Your task to perform on an android device: What's on my calendar today? Image 0: 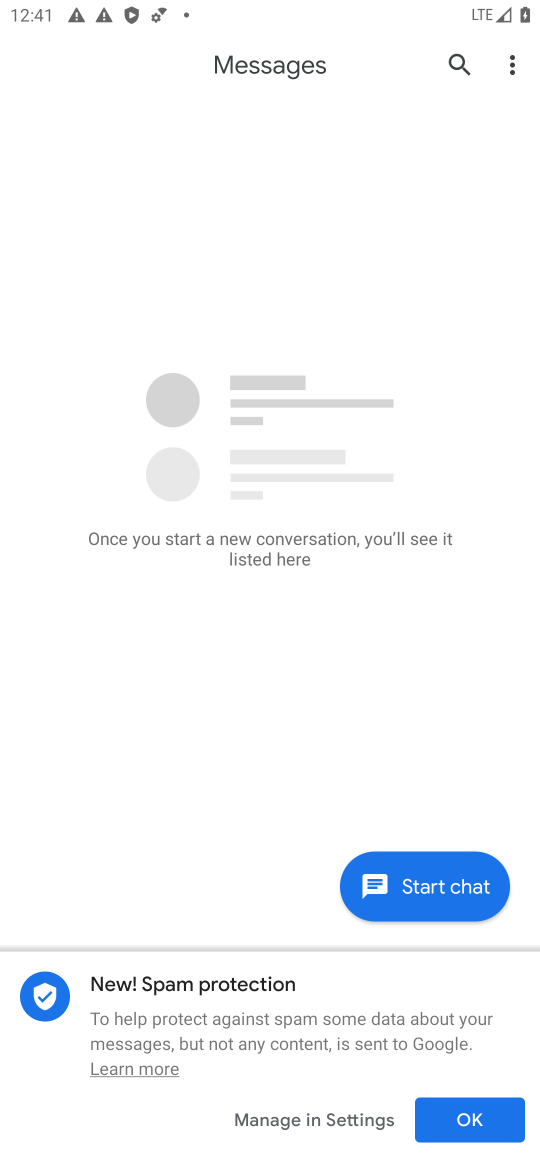
Step 0: press home button
Your task to perform on an android device: What's on my calendar today? Image 1: 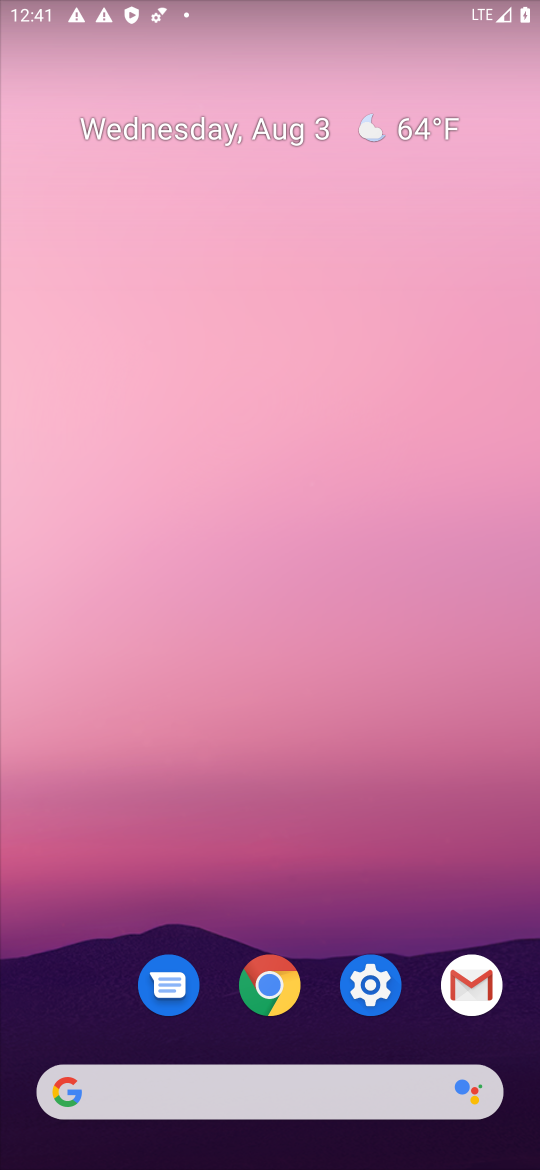
Step 1: drag from (331, 1134) to (339, 161)
Your task to perform on an android device: What's on my calendar today? Image 2: 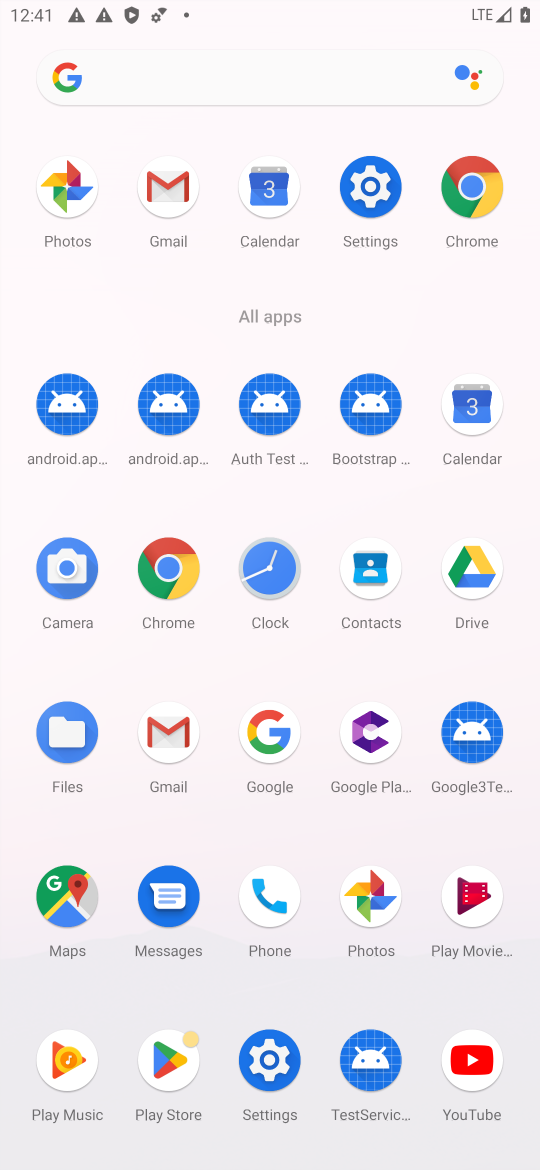
Step 2: click (482, 408)
Your task to perform on an android device: What's on my calendar today? Image 3: 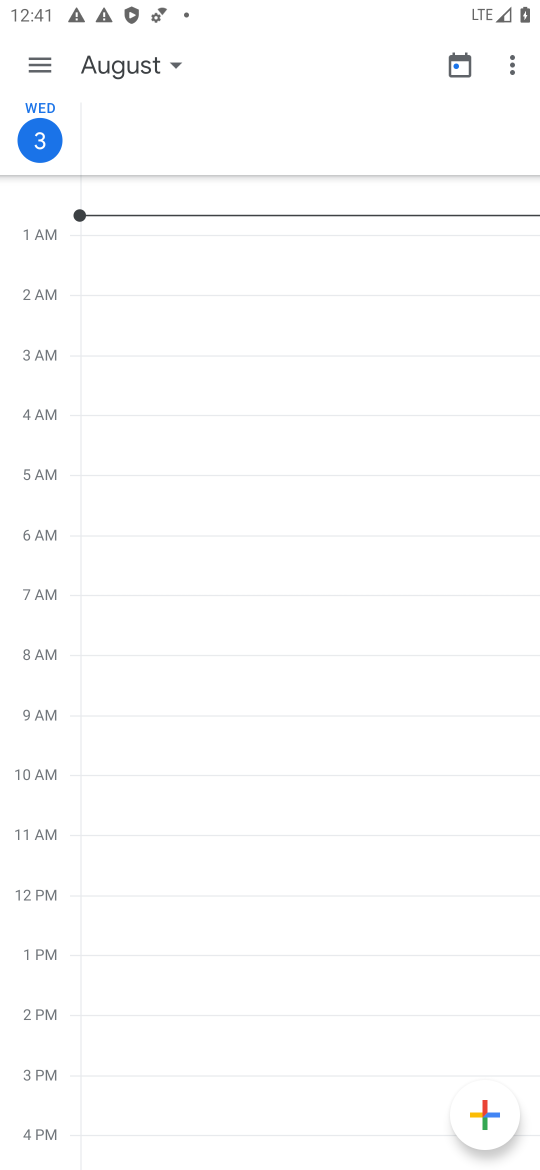
Step 3: click (24, 51)
Your task to perform on an android device: What's on my calendar today? Image 4: 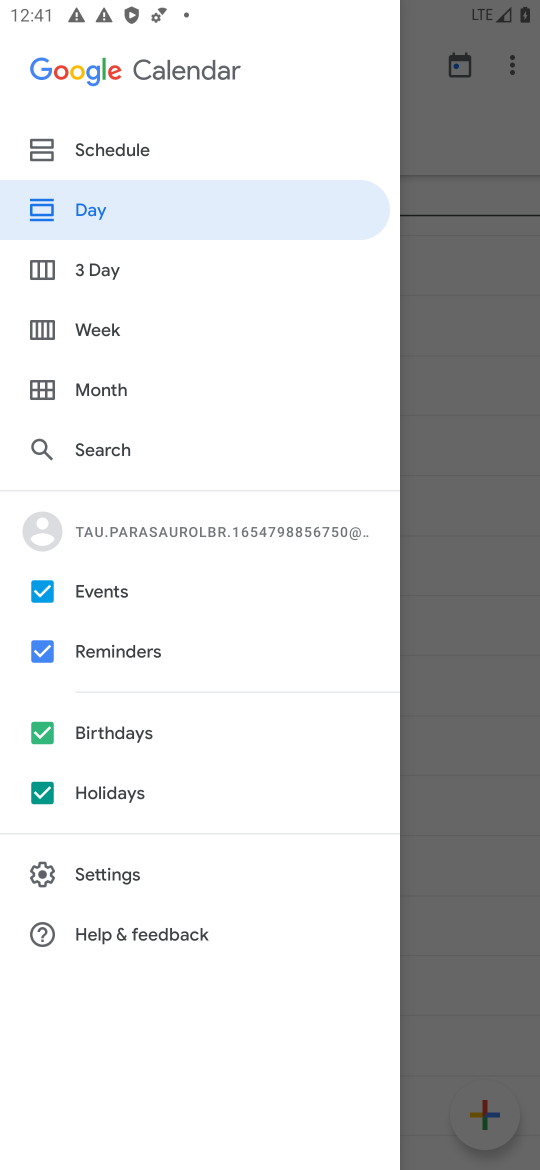
Step 4: click (128, 378)
Your task to perform on an android device: What's on my calendar today? Image 5: 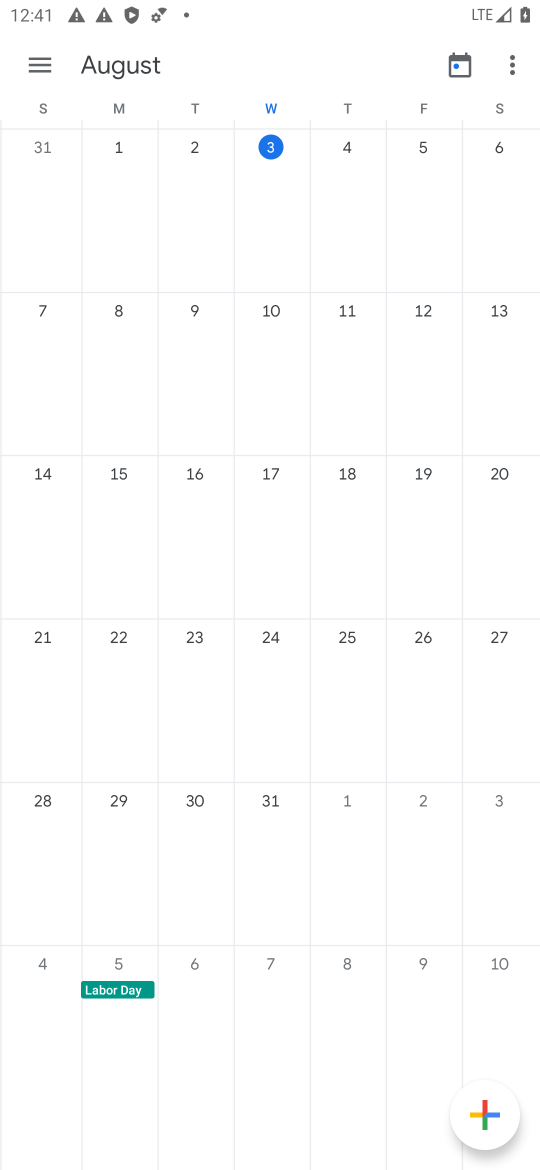
Step 5: click (289, 183)
Your task to perform on an android device: What's on my calendar today? Image 6: 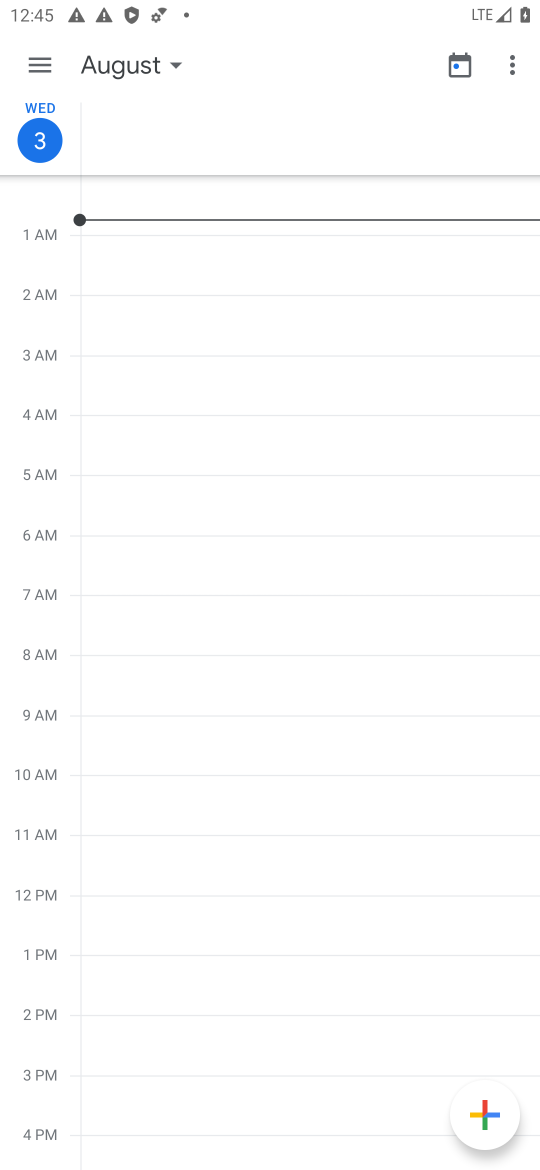
Step 6: task complete